Your task to perform on an android device: Do I have any events tomorrow? Image 0: 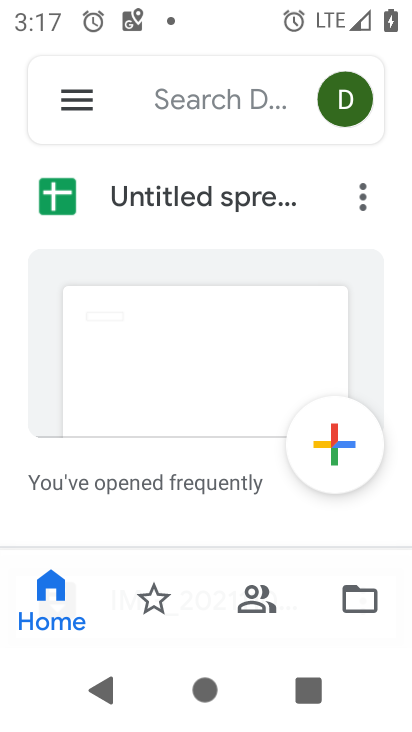
Step 0: press home button
Your task to perform on an android device: Do I have any events tomorrow? Image 1: 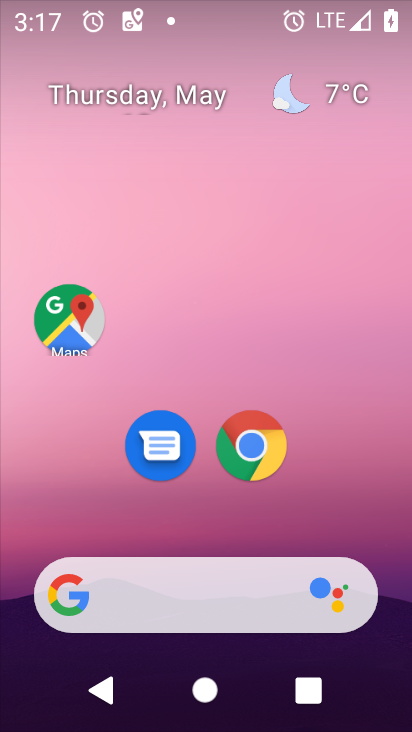
Step 1: drag from (355, 529) to (409, 19)
Your task to perform on an android device: Do I have any events tomorrow? Image 2: 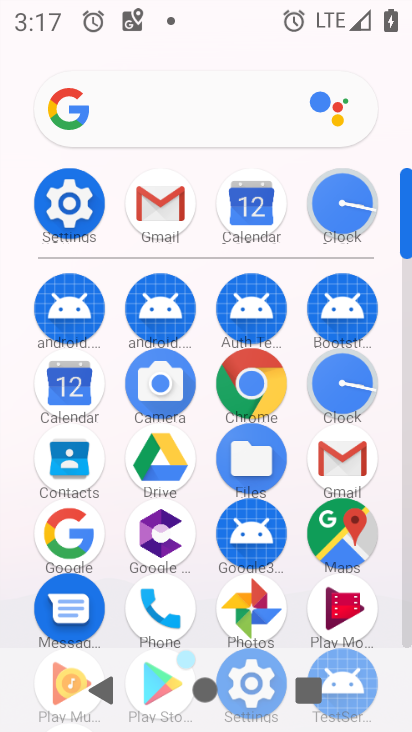
Step 2: click (264, 220)
Your task to perform on an android device: Do I have any events tomorrow? Image 3: 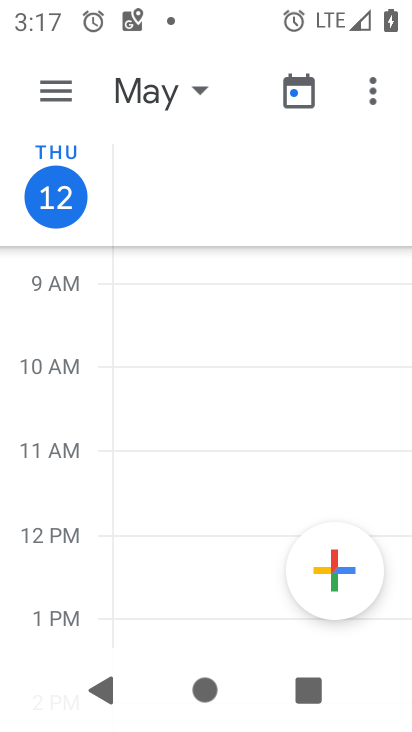
Step 3: click (196, 95)
Your task to perform on an android device: Do I have any events tomorrow? Image 4: 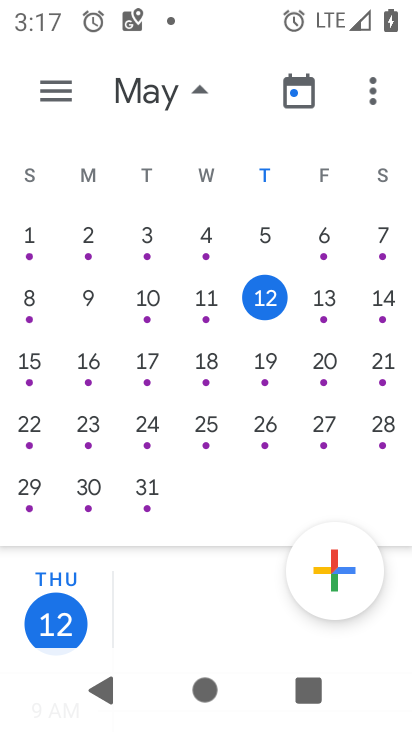
Step 4: click (295, 91)
Your task to perform on an android device: Do I have any events tomorrow? Image 5: 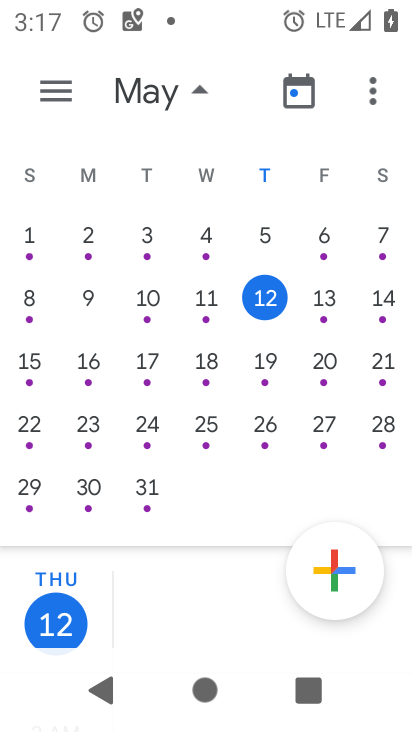
Step 5: drag from (135, 575) to (146, 181)
Your task to perform on an android device: Do I have any events tomorrow? Image 6: 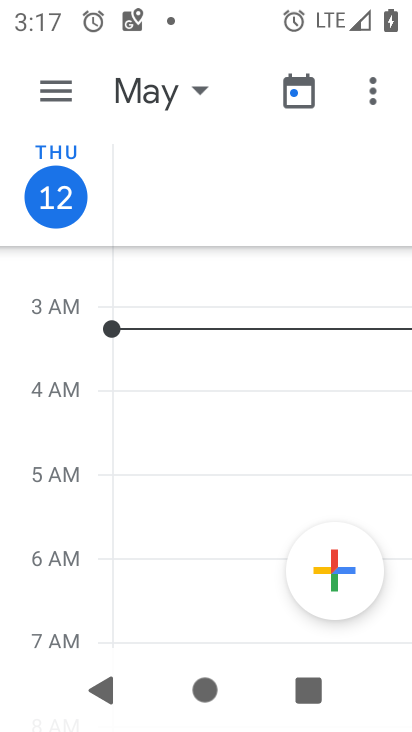
Step 6: drag from (165, 471) to (179, 163)
Your task to perform on an android device: Do I have any events tomorrow? Image 7: 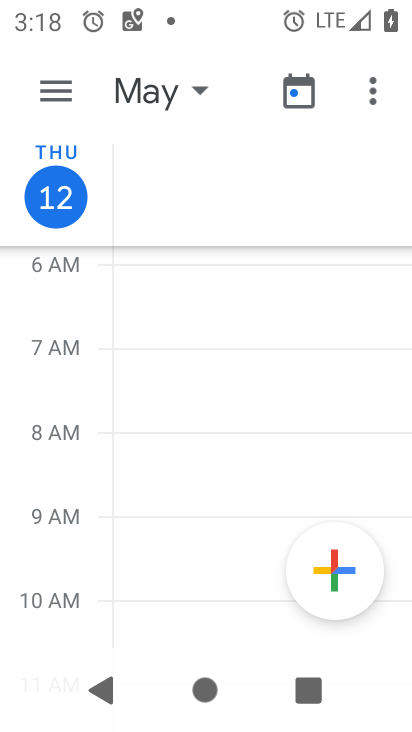
Step 7: drag from (154, 484) to (165, 163)
Your task to perform on an android device: Do I have any events tomorrow? Image 8: 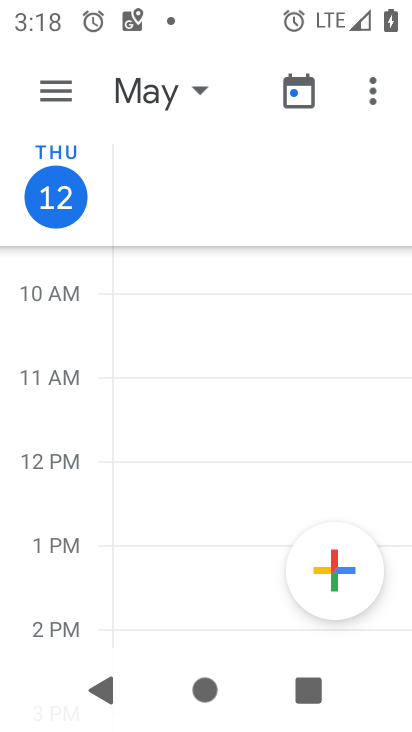
Step 8: drag from (164, 546) to (156, 182)
Your task to perform on an android device: Do I have any events tomorrow? Image 9: 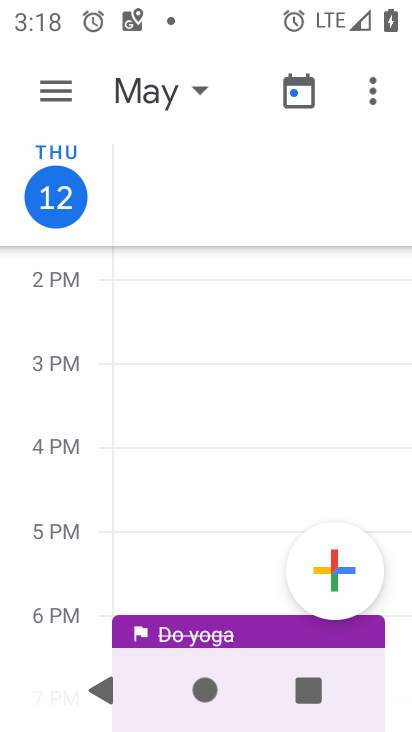
Step 9: drag from (206, 534) to (195, 187)
Your task to perform on an android device: Do I have any events tomorrow? Image 10: 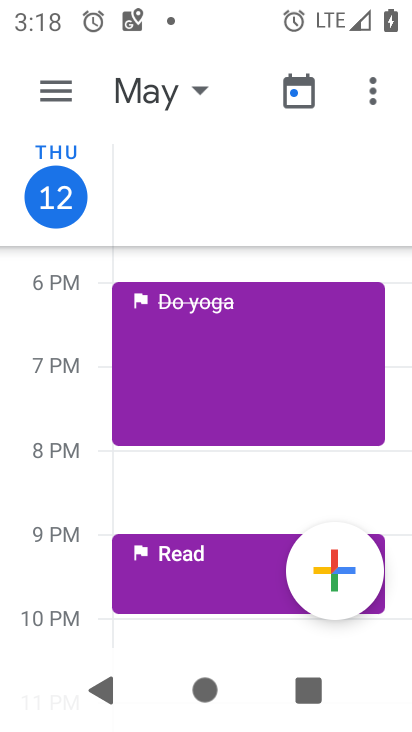
Step 10: drag from (185, 495) to (184, 186)
Your task to perform on an android device: Do I have any events tomorrow? Image 11: 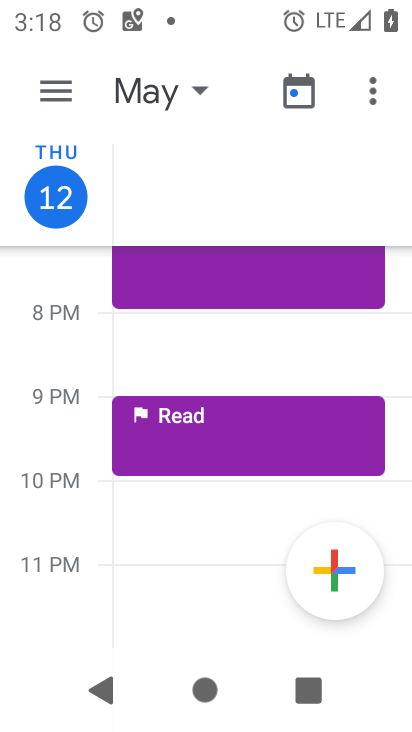
Step 11: click (62, 83)
Your task to perform on an android device: Do I have any events tomorrow? Image 12: 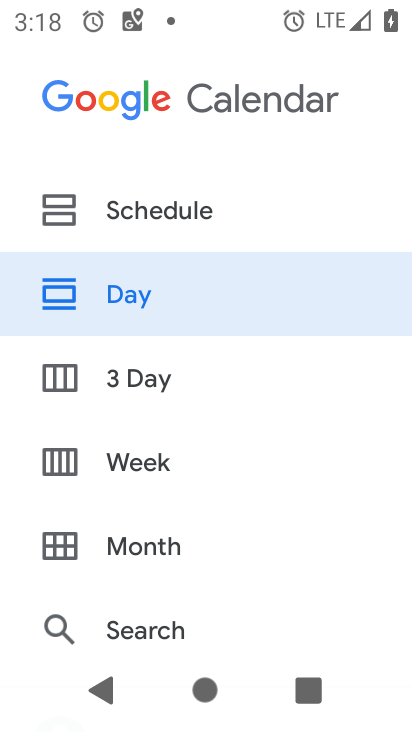
Step 12: click (92, 209)
Your task to perform on an android device: Do I have any events tomorrow? Image 13: 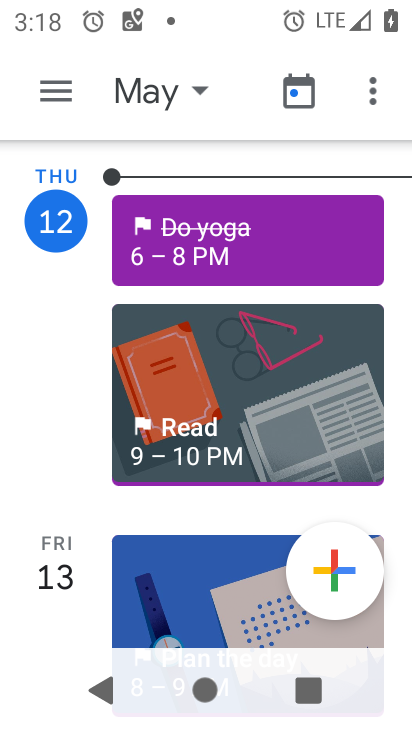
Step 13: drag from (220, 526) to (233, 155)
Your task to perform on an android device: Do I have any events tomorrow? Image 14: 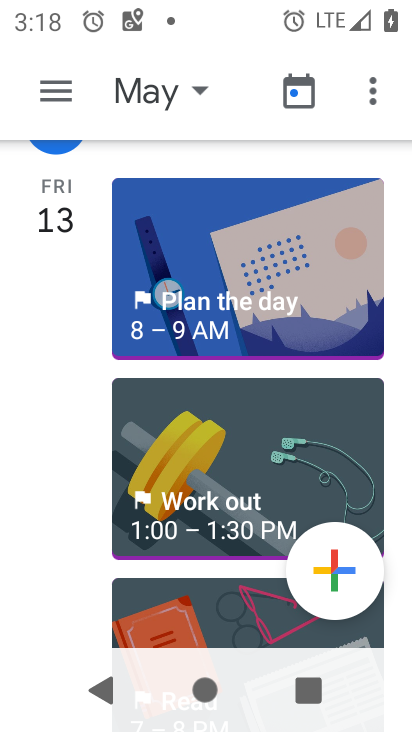
Step 14: drag from (203, 551) to (233, 227)
Your task to perform on an android device: Do I have any events tomorrow? Image 15: 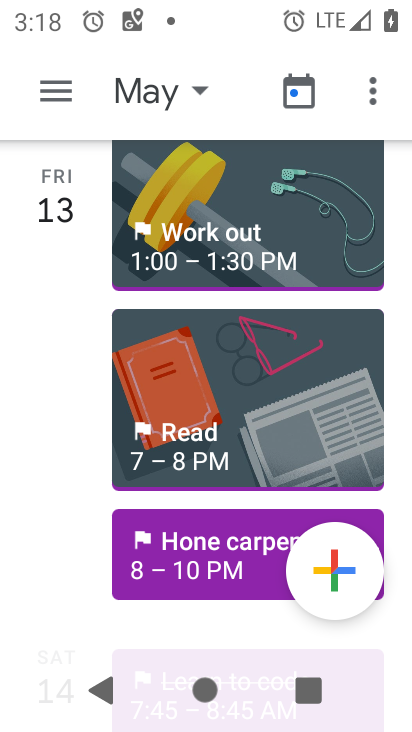
Step 15: click (214, 548)
Your task to perform on an android device: Do I have any events tomorrow? Image 16: 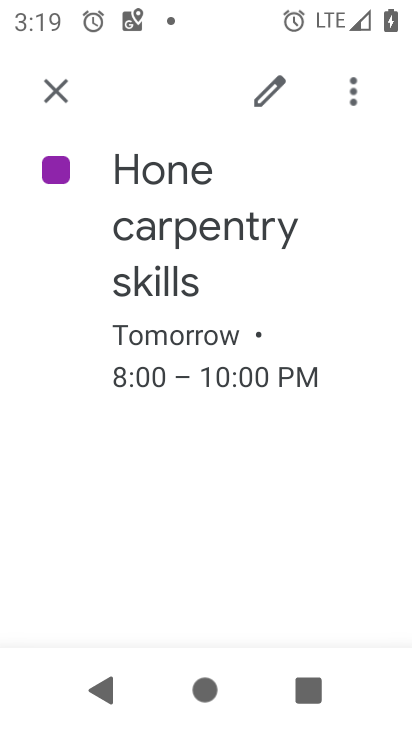
Step 16: task complete